Your task to perform on an android device: What's the weather? Image 0: 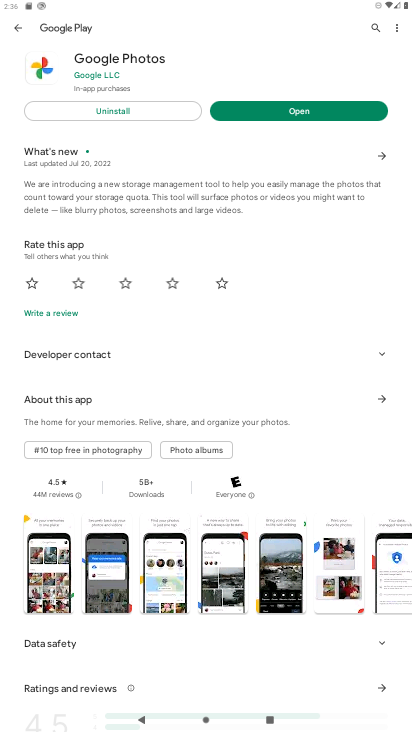
Step 0: press home button
Your task to perform on an android device: What's the weather? Image 1: 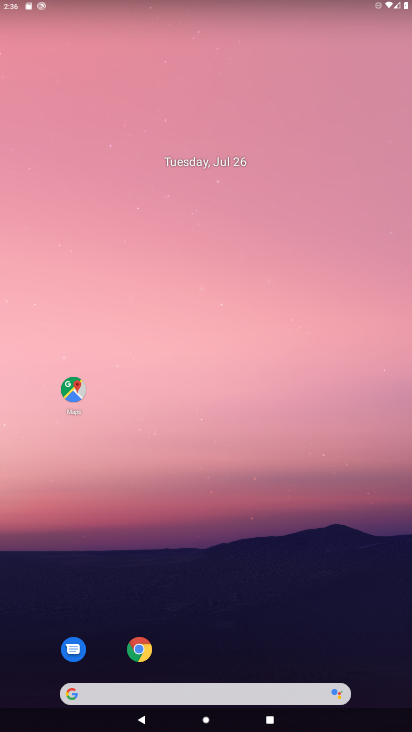
Step 1: drag from (183, 683) to (180, 140)
Your task to perform on an android device: What's the weather? Image 2: 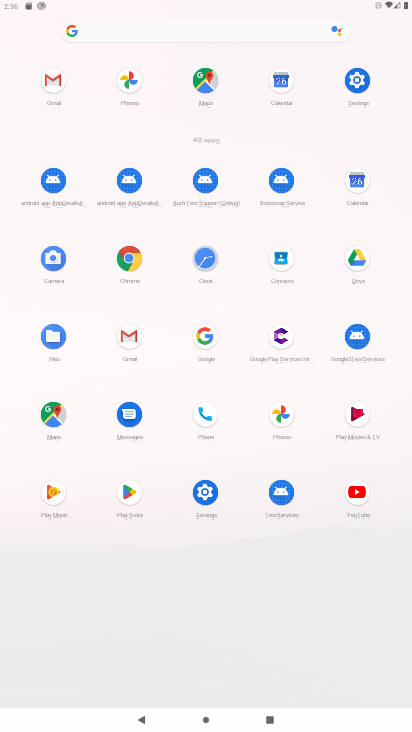
Step 2: click (124, 255)
Your task to perform on an android device: What's the weather? Image 3: 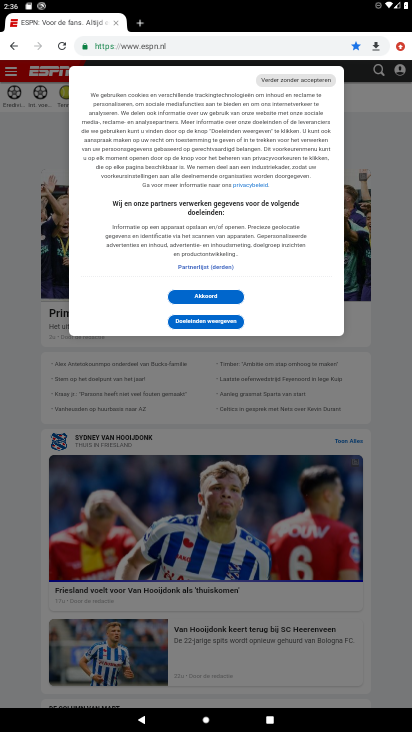
Step 3: click (214, 296)
Your task to perform on an android device: What's the weather? Image 4: 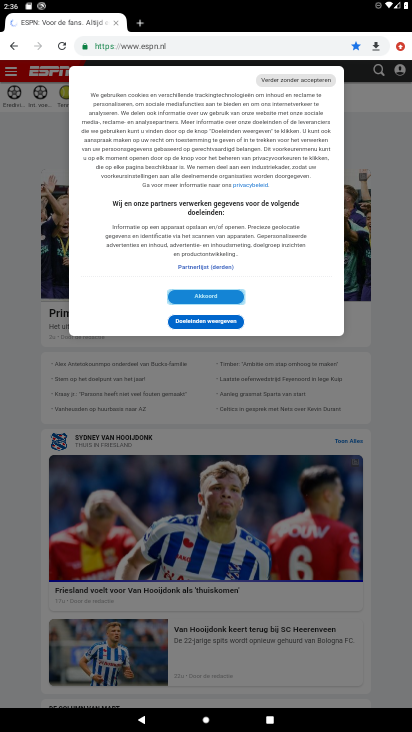
Step 4: click (161, 48)
Your task to perform on an android device: What's the weather? Image 5: 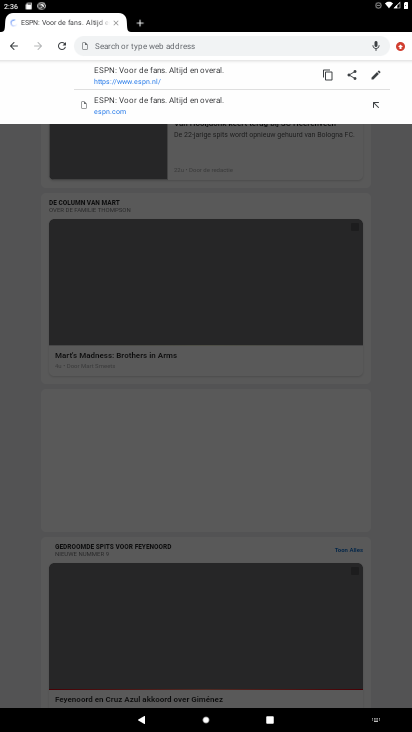
Step 5: type "weather"
Your task to perform on an android device: What's the weather? Image 6: 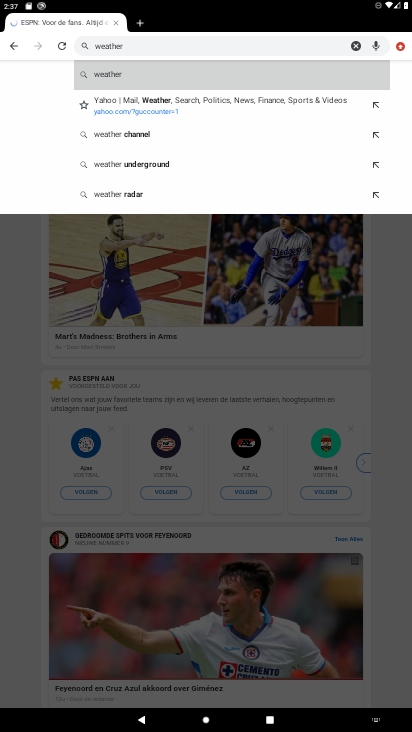
Step 6: click (118, 86)
Your task to perform on an android device: What's the weather? Image 7: 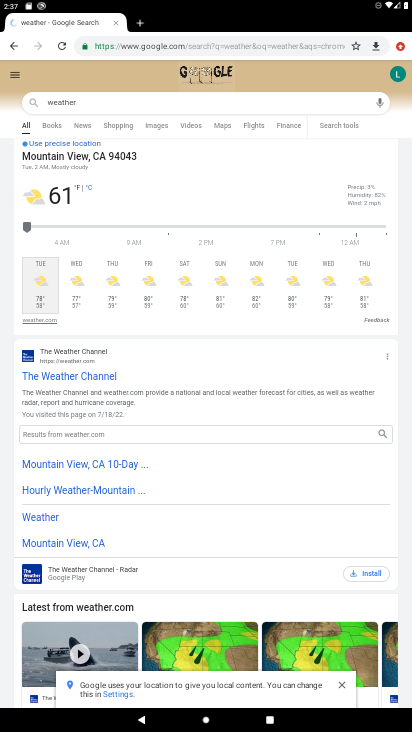
Step 7: task complete